Your task to perform on an android device: What is the recent news? Image 0: 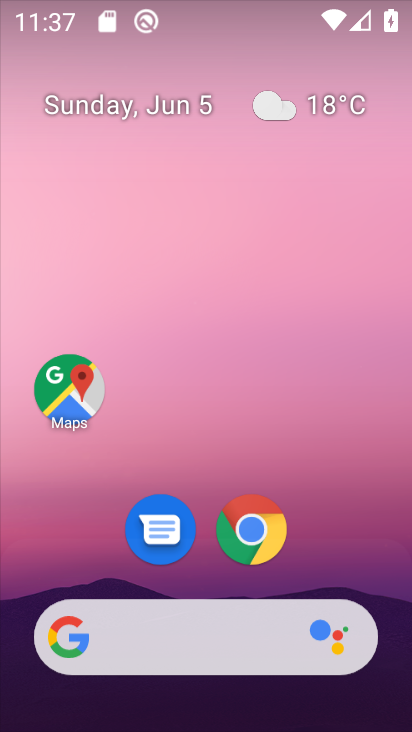
Step 0: click (182, 653)
Your task to perform on an android device: What is the recent news? Image 1: 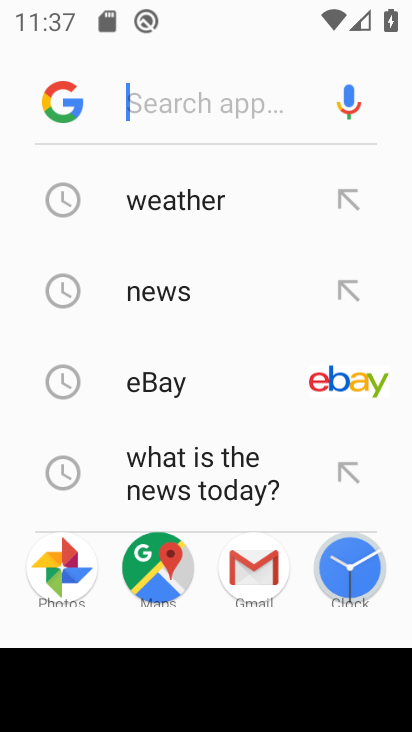
Step 1: type "what is the recent news"
Your task to perform on an android device: What is the recent news? Image 2: 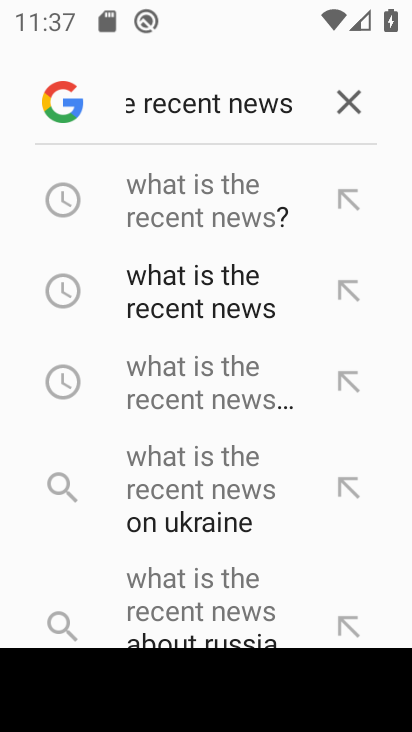
Step 2: click (225, 212)
Your task to perform on an android device: What is the recent news? Image 3: 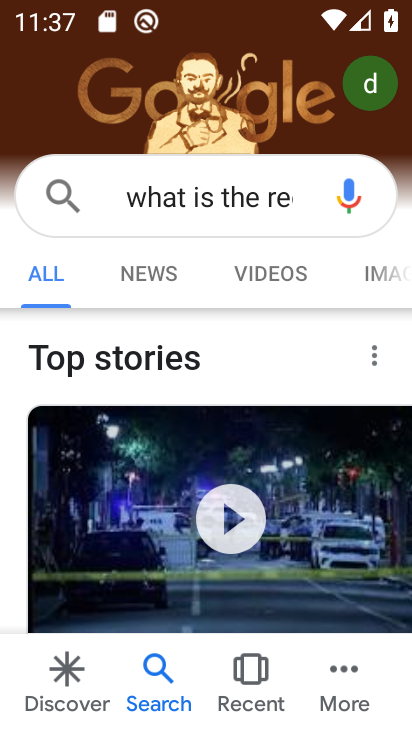
Step 3: click (145, 287)
Your task to perform on an android device: What is the recent news? Image 4: 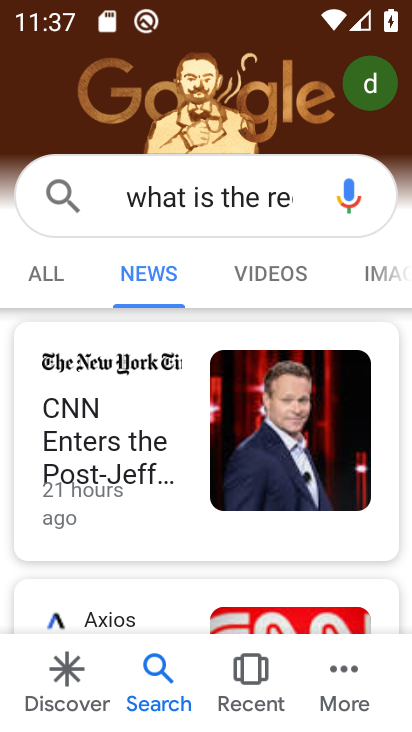
Step 4: task complete